Your task to perform on an android device: open app "Life360: Find Family & Friends" (install if not already installed), go to login, and select forgot password Image 0: 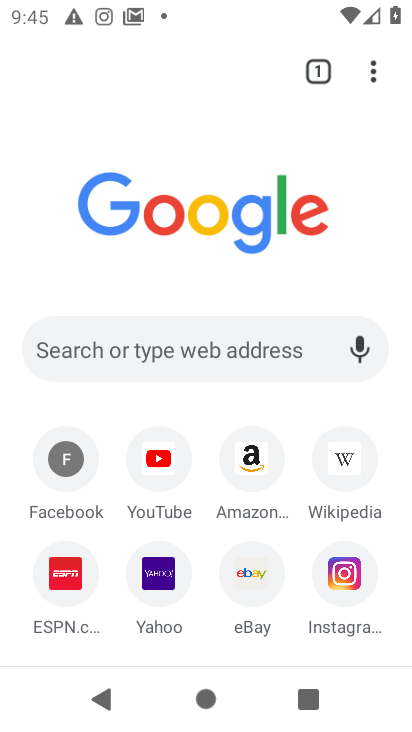
Step 0: press home button
Your task to perform on an android device: open app "Life360: Find Family & Friends" (install if not already installed), go to login, and select forgot password Image 1: 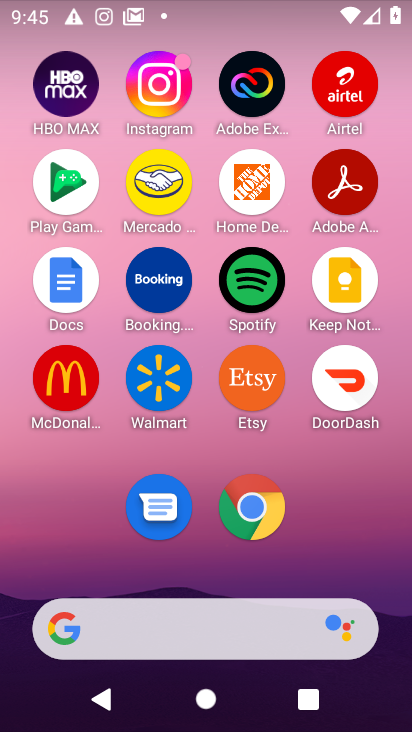
Step 1: drag from (194, 540) to (212, 173)
Your task to perform on an android device: open app "Life360: Find Family & Friends" (install if not already installed), go to login, and select forgot password Image 2: 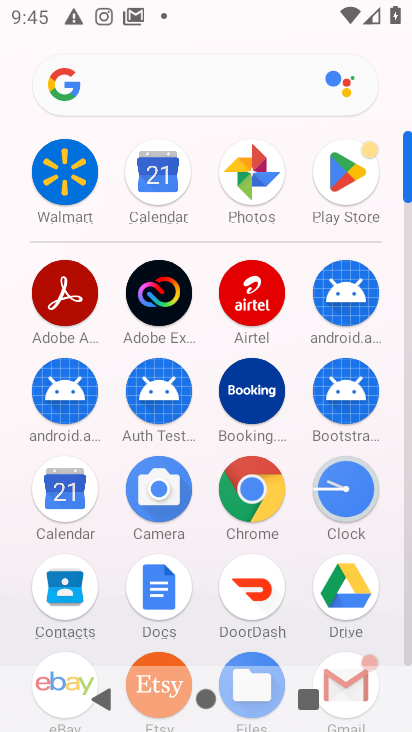
Step 2: click (343, 178)
Your task to perform on an android device: open app "Life360: Find Family & Friends" (install if not already installed), go to login, and select forgot password Image 3: 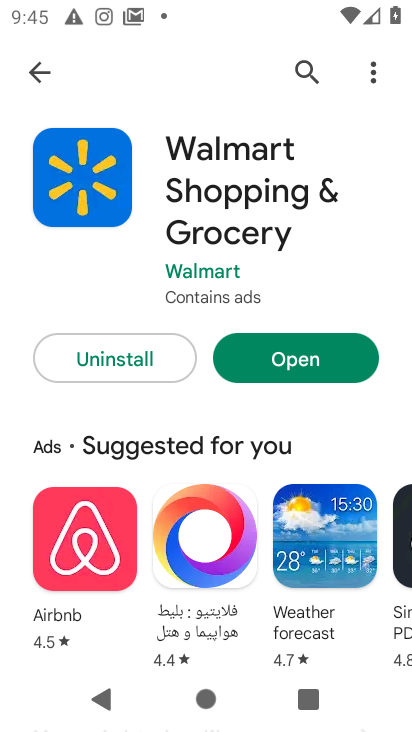
Step 3: click (40, 67)
Your task to perform on an android device: open app "Life360: Find Family & Friends" (install if not already installed), go to login, and select forgot password Image 4: 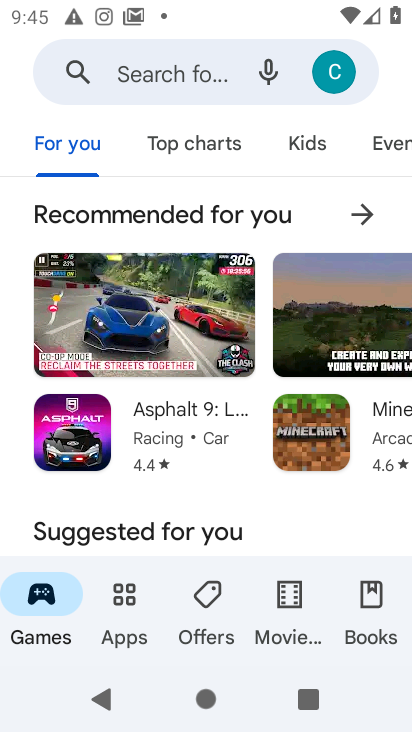
Step 4: click (153, 66)
Your task to perform on an android device: open app "Life360: Find Family & Friends" (install if not already installed), go to login, and select forgot password Image 5: 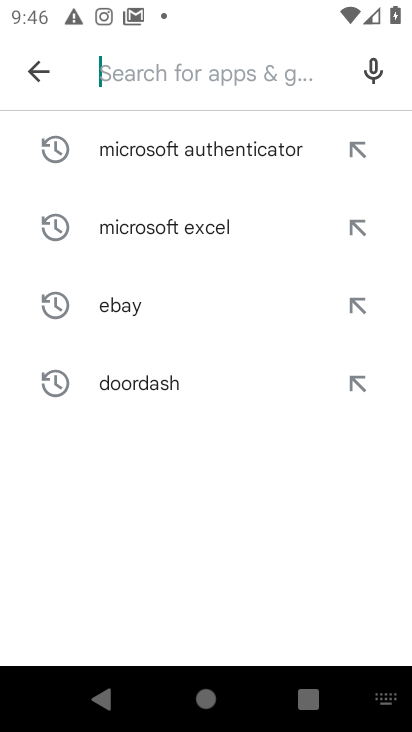
Step 5: type "Life360: Find Family & Friends"
Your task to perform on an android device: open app "Life360: Find Family & Friends" (install if not already installed), go to login, and select forgot password Image 6: 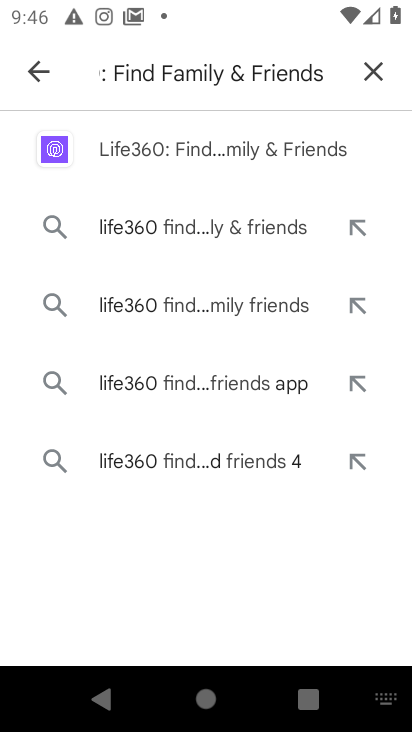
Step 6: click (254, 139)
Your task to perform on an android device: open app "Life360: Find Family & Friends" (install if not already installed), go to login, and select forgot password Image 7: 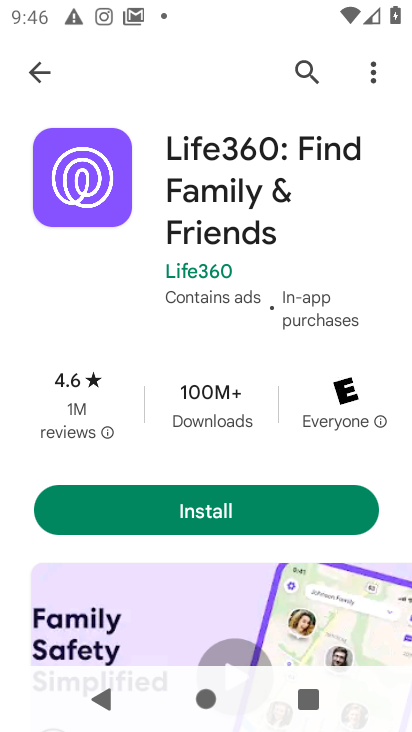
Step 7: click (206, 523)
Your task to perform on an android device: open app "Life360: Find Family & Friends" (install if not already installed), go to login, and select forgot password Image 8: 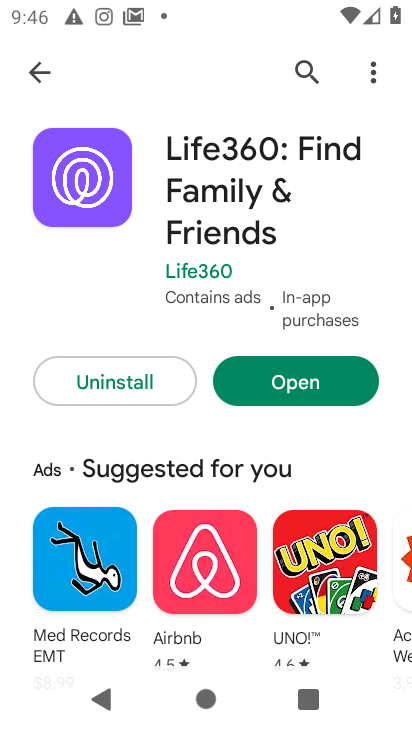
Step 8: click (271, 382)
Your task to perform on an android device: open app "Life360: Find Family & Friends" (install if not already installed), go to login, and select forgot password Image 9: 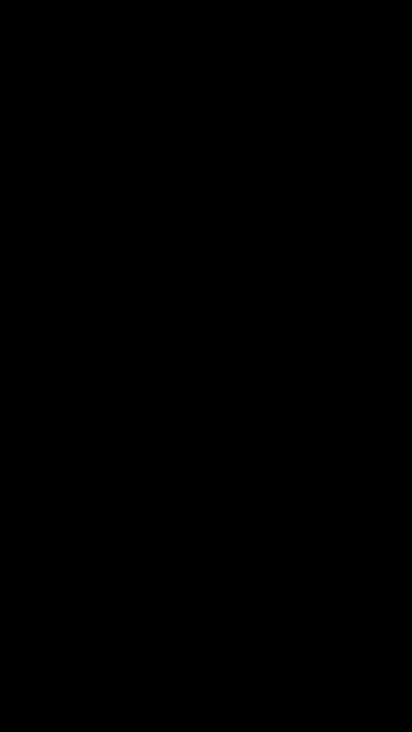
Step 9: task complete